Your task to perform on an android device: Go to internet settings Image 0: 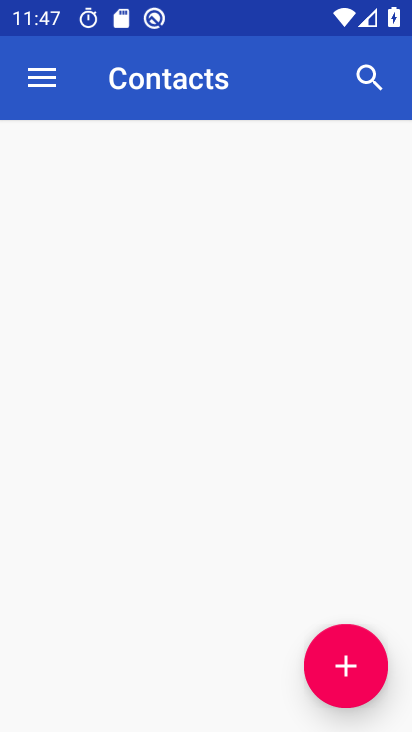
Step 0: press home button
Your task to perform on an android device: Go to internet settings Image 1: 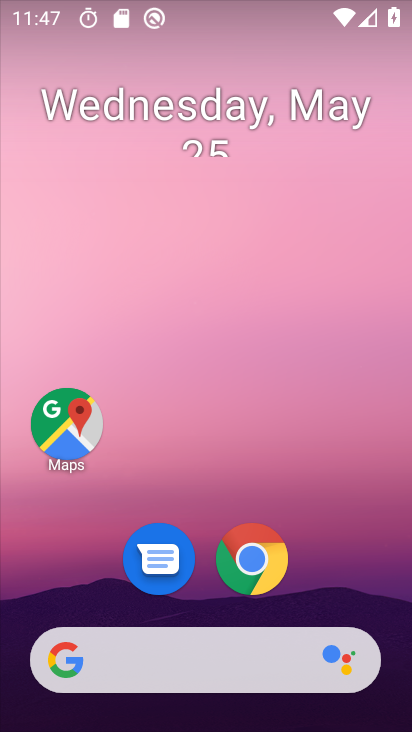
Step 1: drag from (395, 557) to (335, 128)
Your task to perform on an android device: Go to internet settings Image 2: 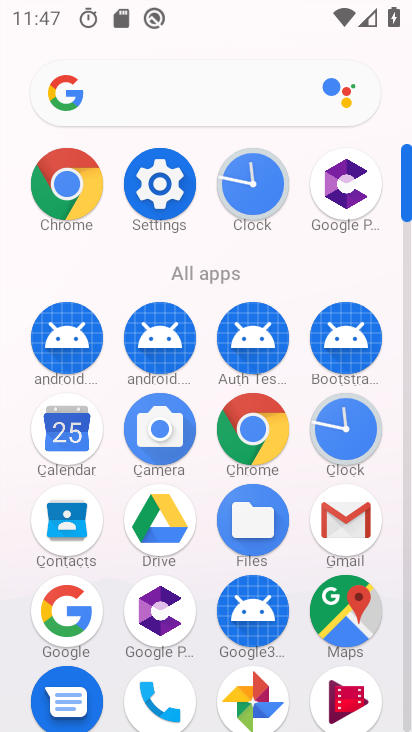
Step 2: click (157, 189)
Your task to perform on an android device: Go to internet settings Image 3: 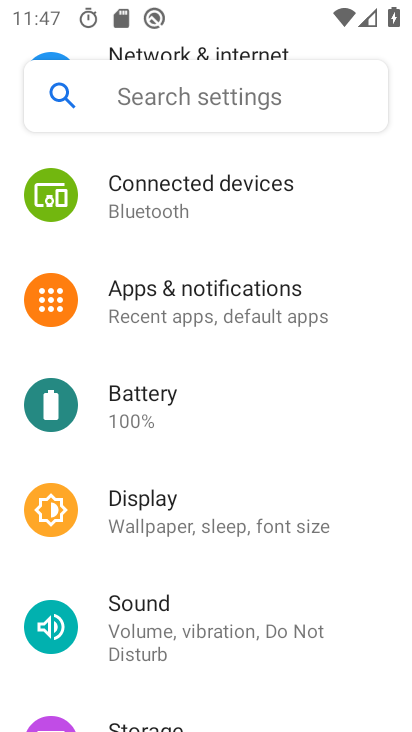
Step 3: drag from (226, 193) to (297, 575)
Your task to perform on an android device: Go to internet settings Image 4: 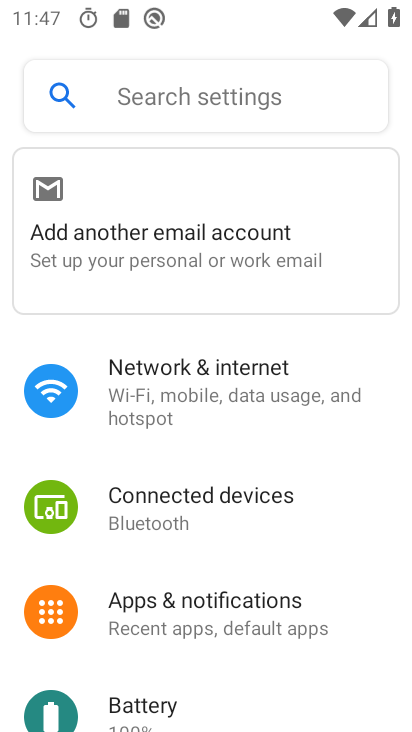
Step 4: click (251, 381)
Your task to perform on an android device: Go to internet settings Image 5: 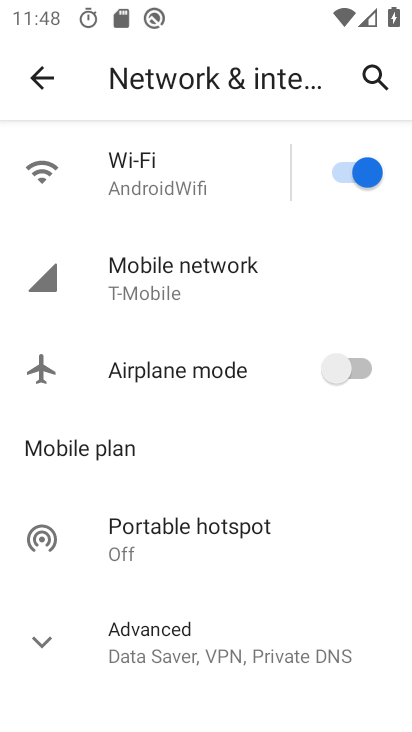
Step 5: task complete